Your task to perform on an android device: add a contact Image 0: 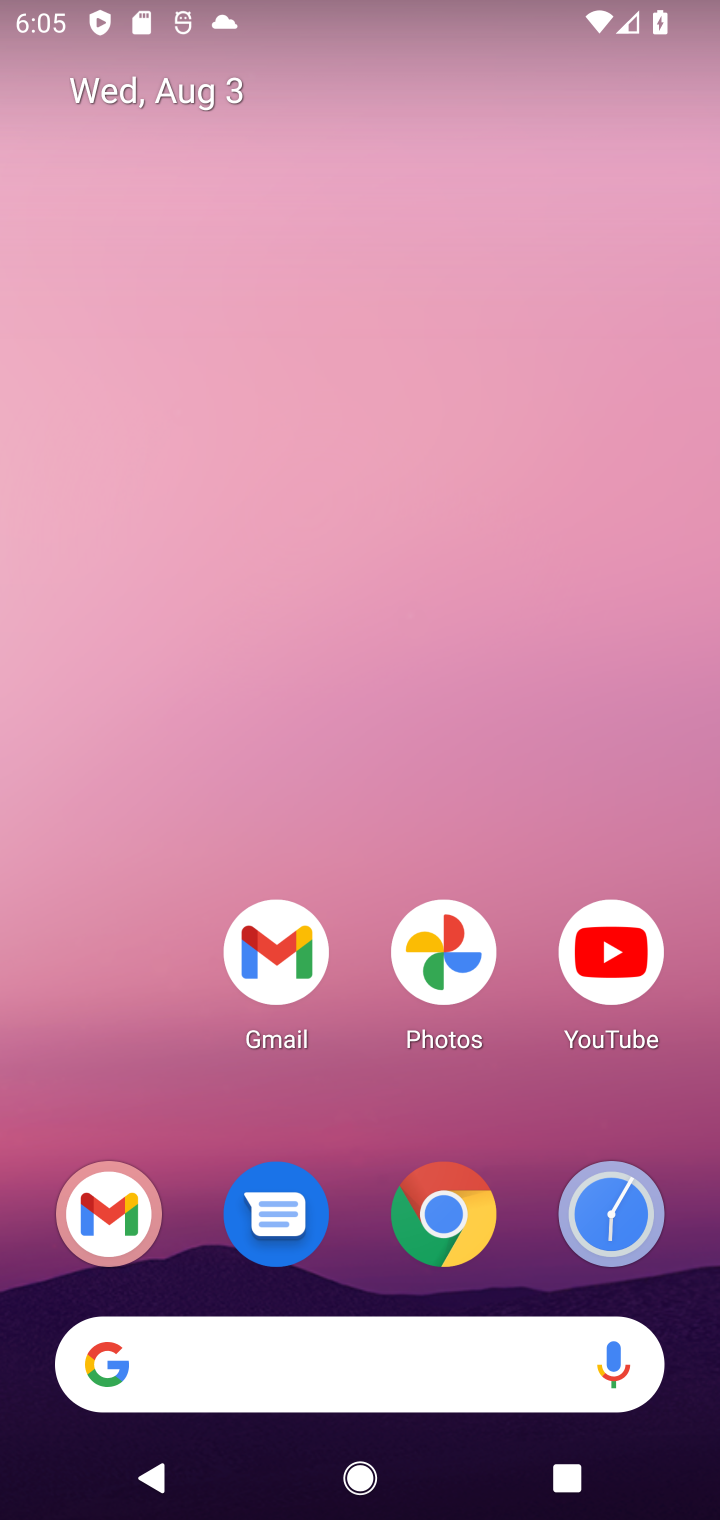
Step 0: drag from (113, 971) to (300, 4)
Your task to perform on an android device: add a contact Image 1: 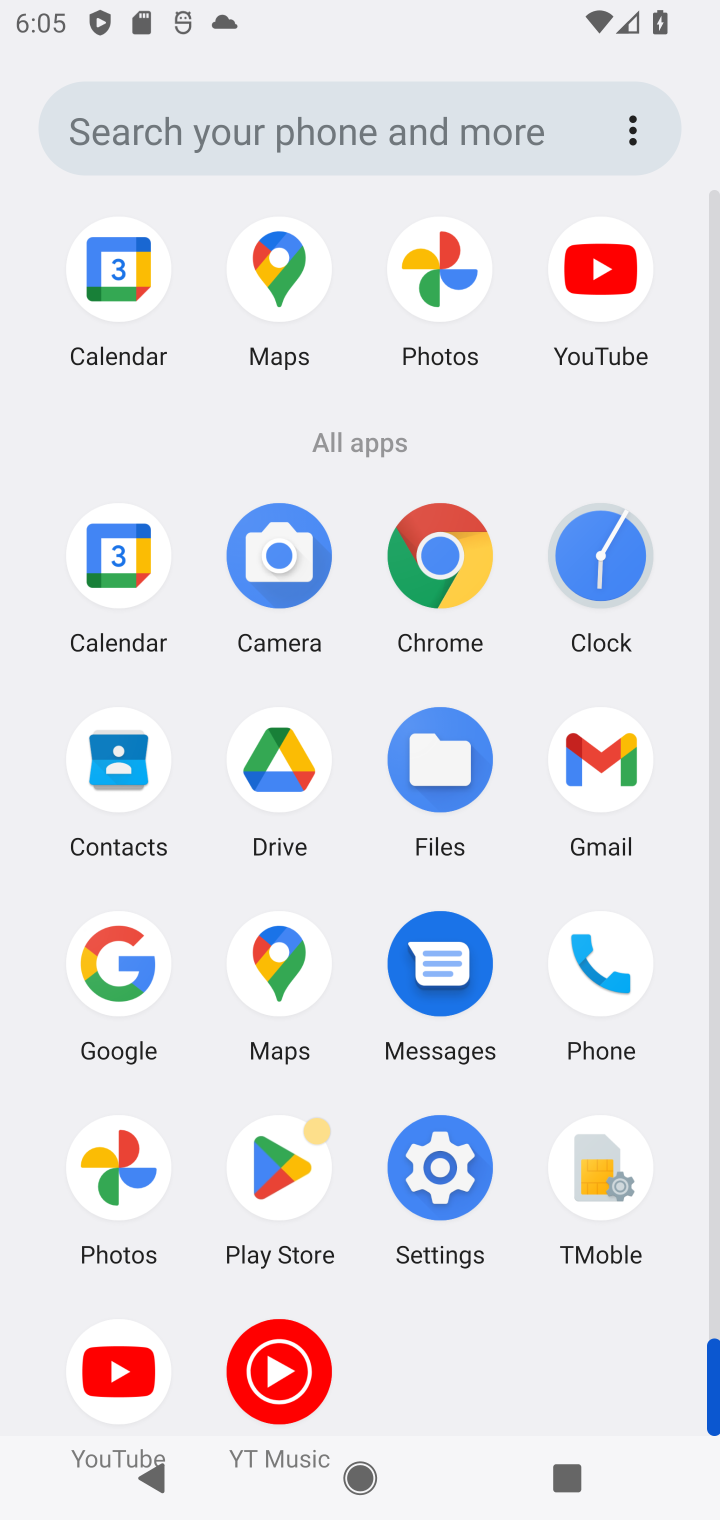
Step 1: click (584, 993)
Your task to perform on an android device: add a contact Image 2: 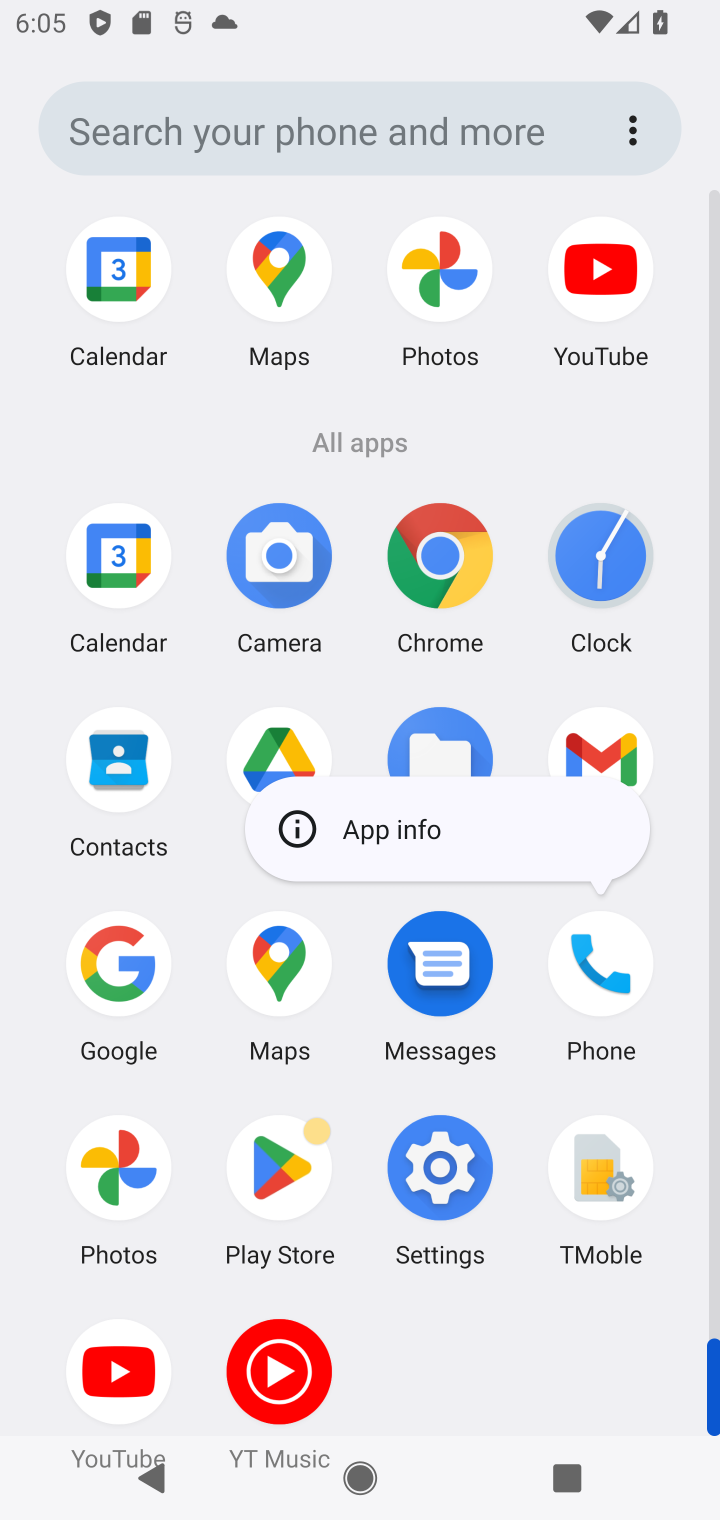
Step 2: click (579, 981)
Your task to perform on an android device: add a contact Image 3: 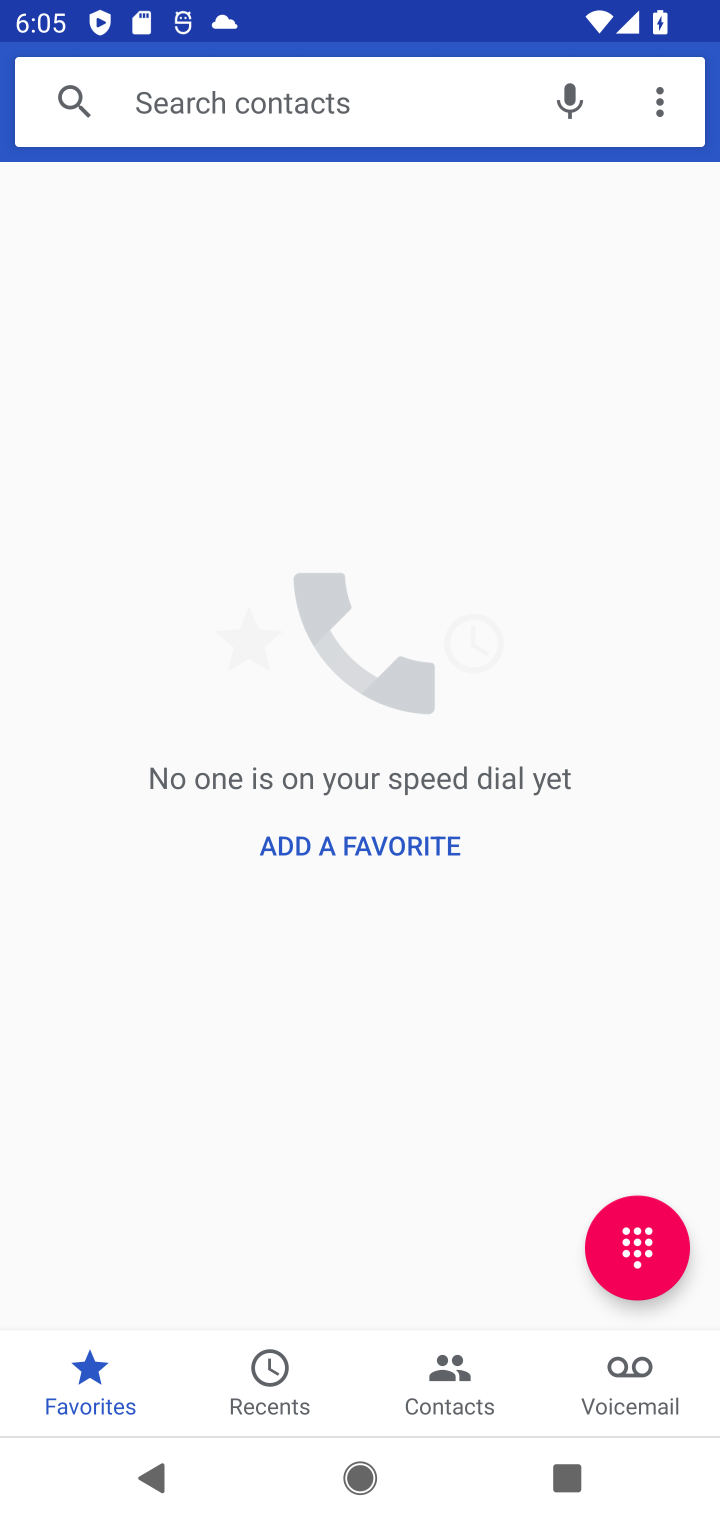
Step 3: click (443, 1385)
Your task to perform on an android device: add a contact Image 4: 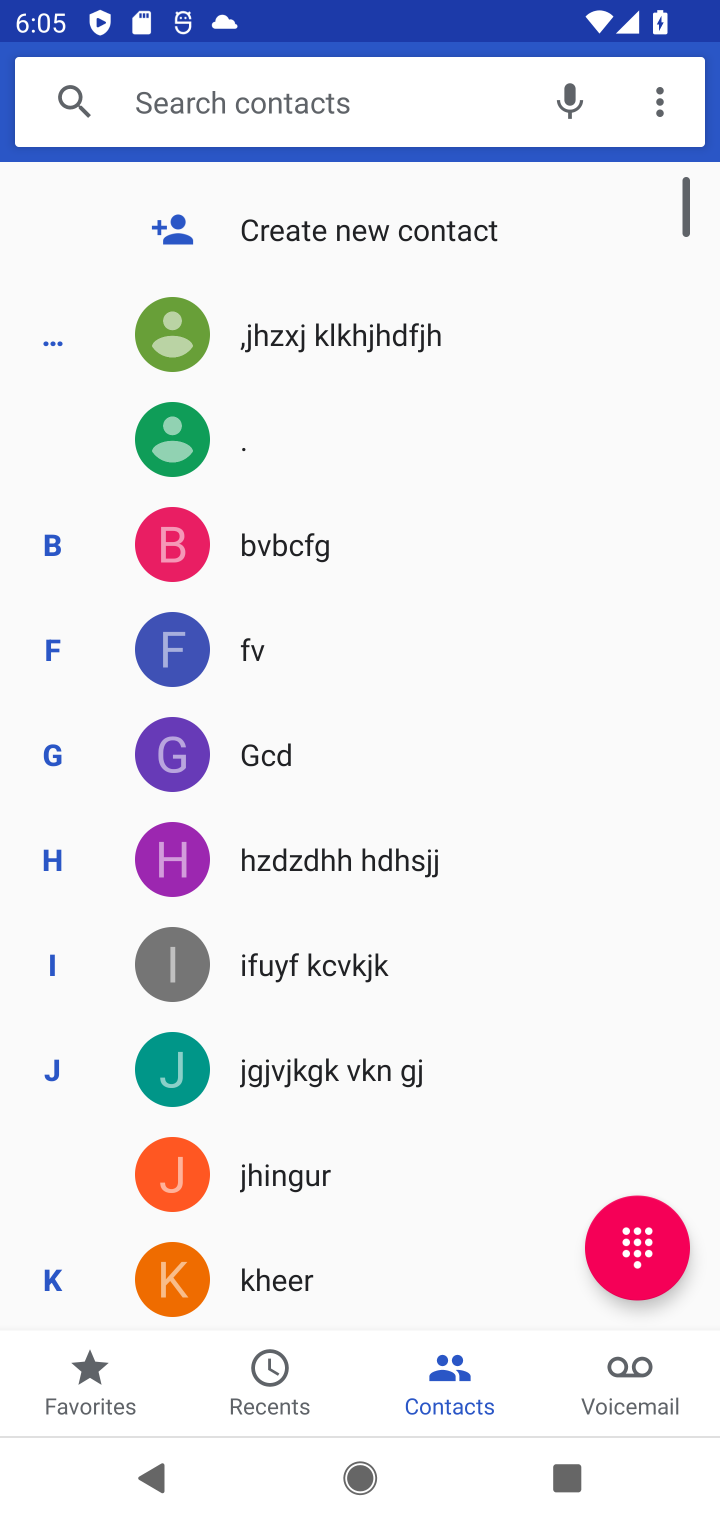
Step 4: click (418, 224)
Your task to perform on an android device: add a contact Image 5: 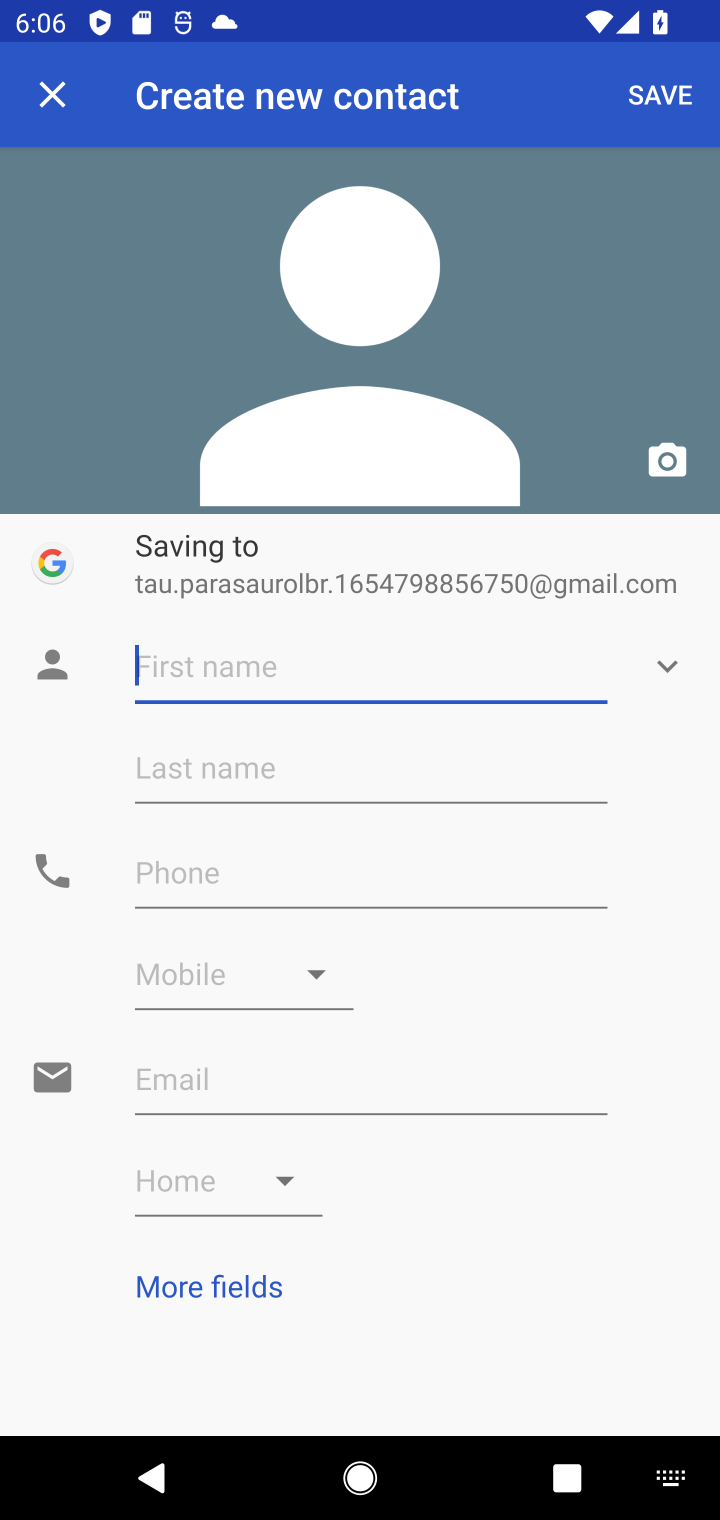
Step 5: type "tyttyyyt"
Your task to perform on an android device: add a contact Image 6: 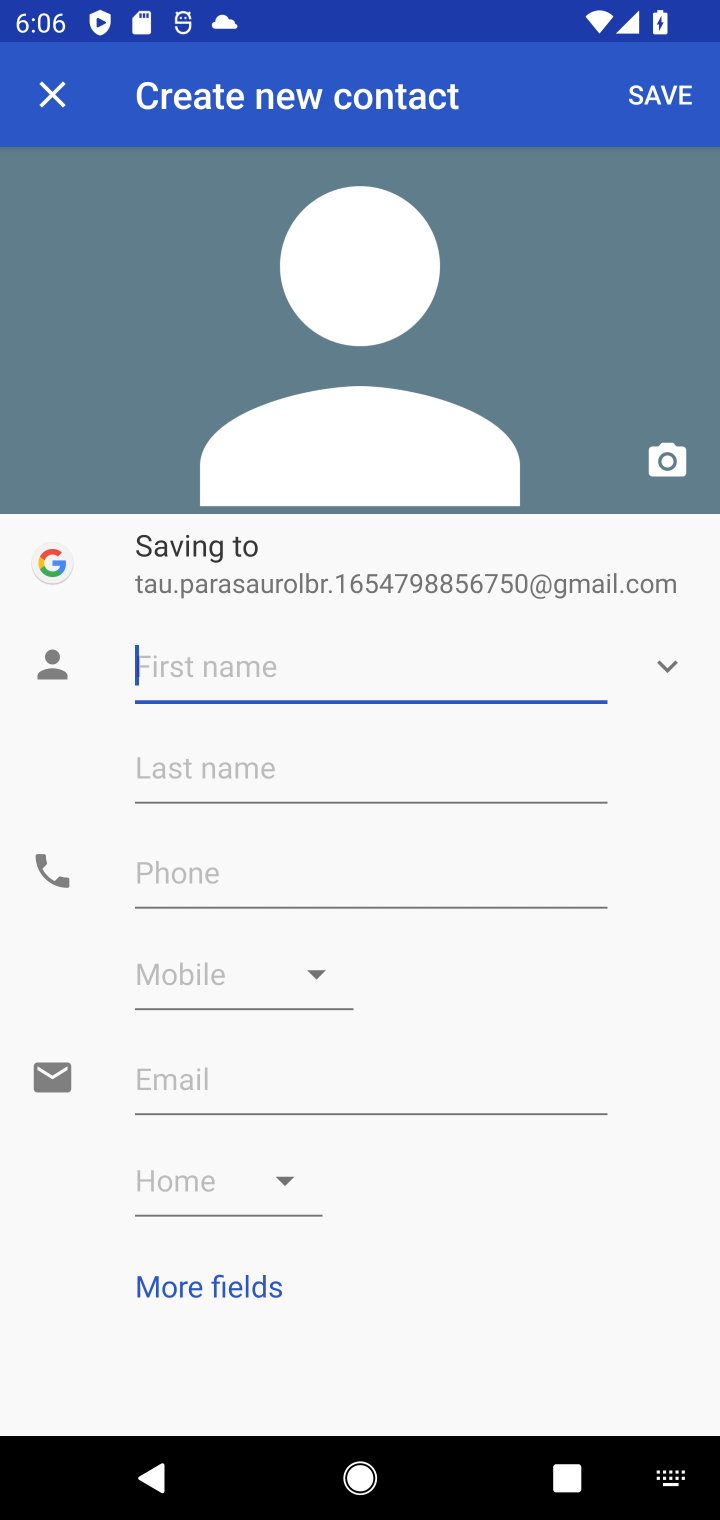
Step 6: click (274, 884)
Your task to perform on an android device: add a contact Image 7: 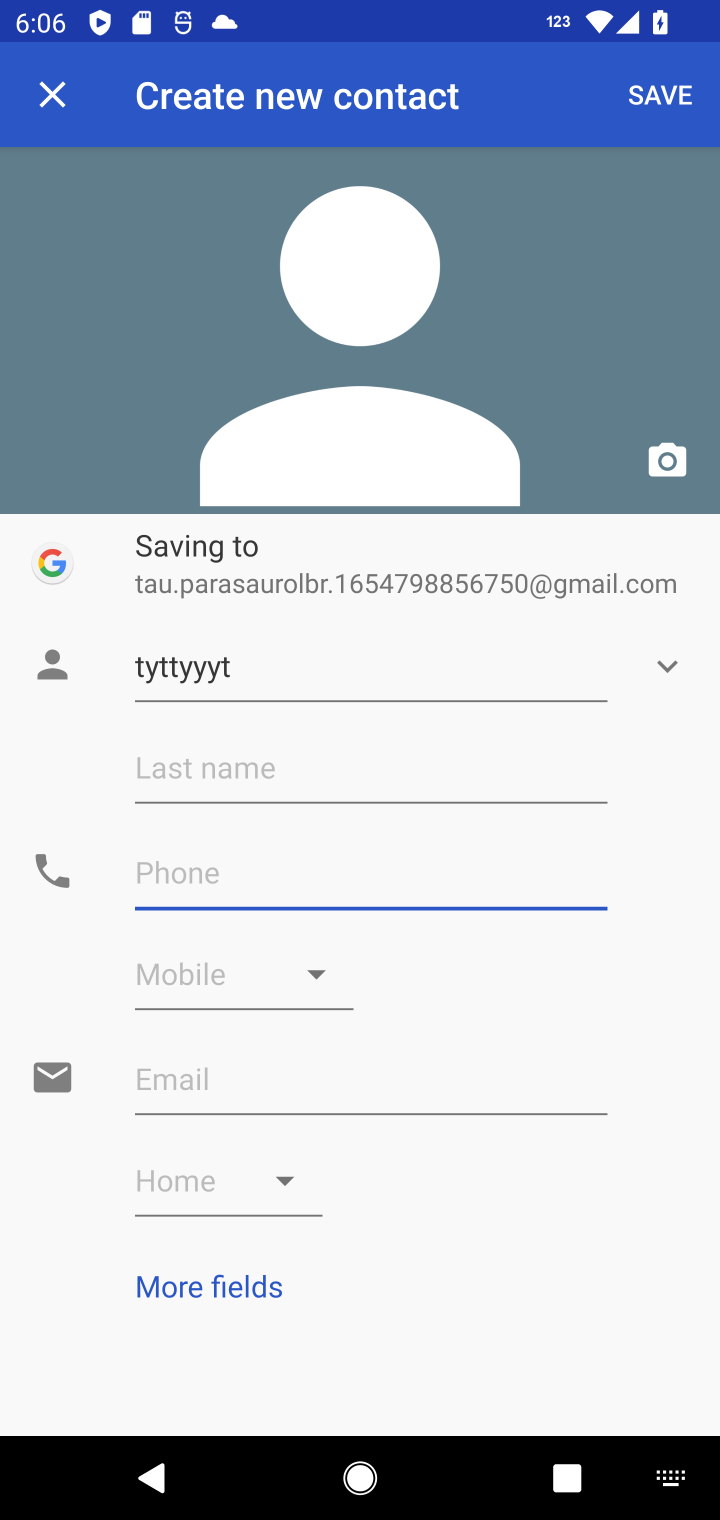
Step 7: type "567885678"
Your task to perform on an android device: add a contact Image 8: 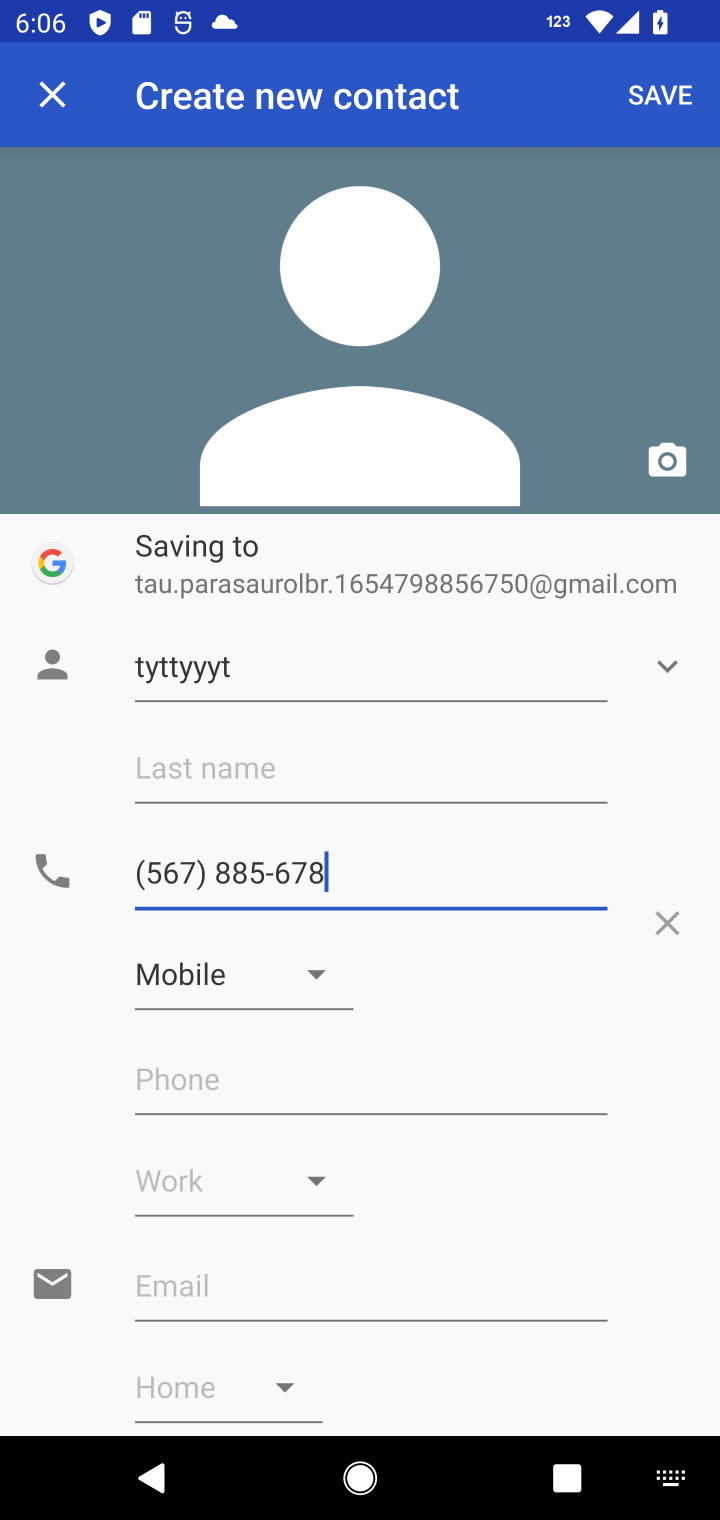
Step 8: click (620, 81)
Your task to perform on an android device: add a contact Image 9: 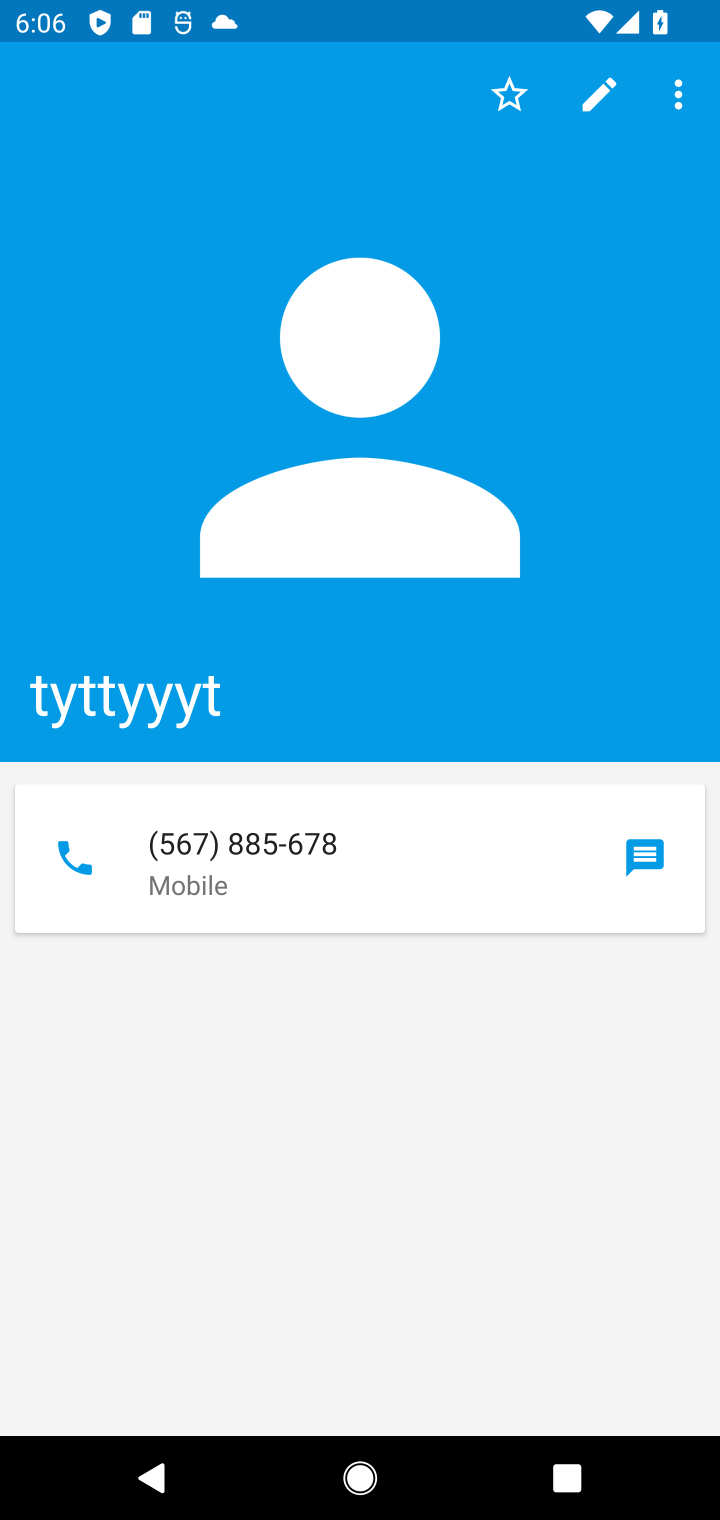
Step 9: task complete